Your task to perform on an android device: see creations saved in the google photos Image 0: 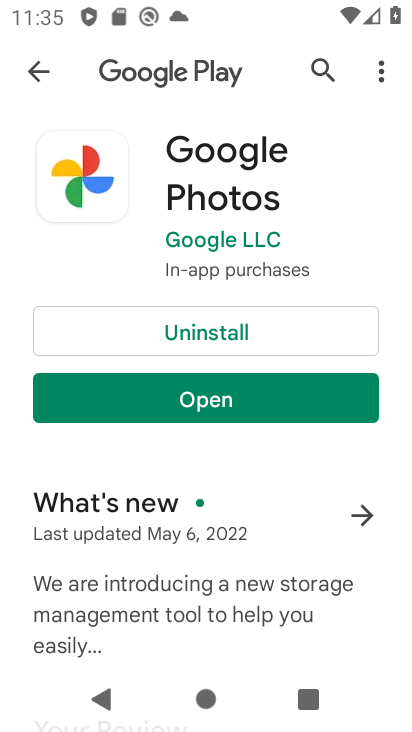
Step 0: press home button
Your task to perform on an android device: see creations saved in the google photos Image 1: 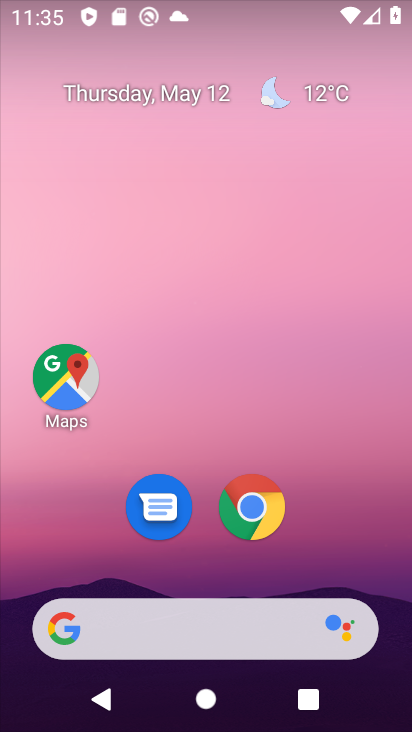
Step 1: drag from (182, 566) to (226, 118)
Your task to perform on an android device: see creations saved in the google photos Image 2: 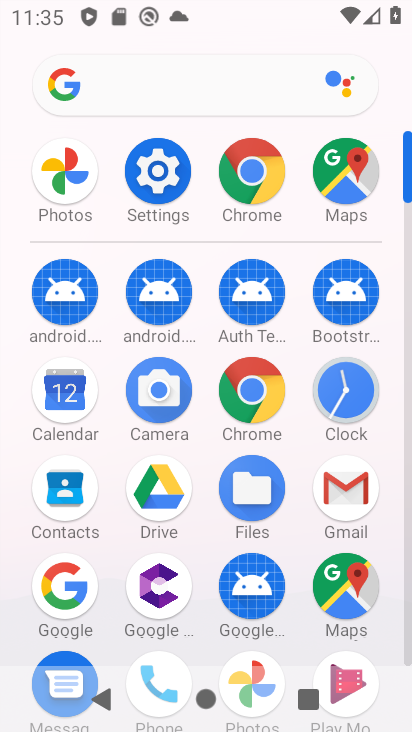
Step 2: drag from (231, 610) to (232, 306)
Your task to perform on an android device: see creations saved in the google photos Image 3: 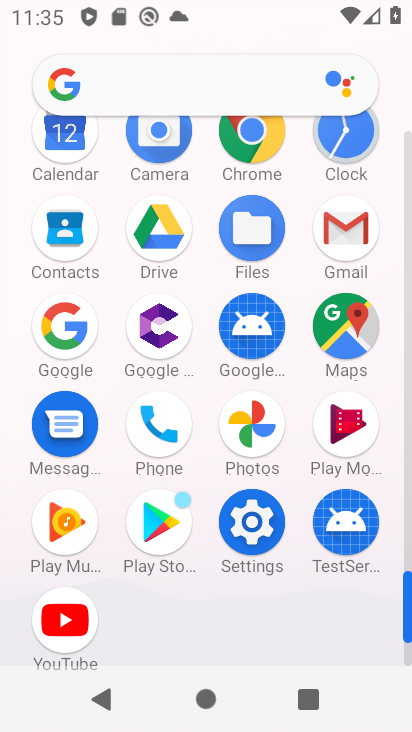
Step 3: click (246, 444)
Your task to perform on an android device: see creations saved in the google photos Image 4: 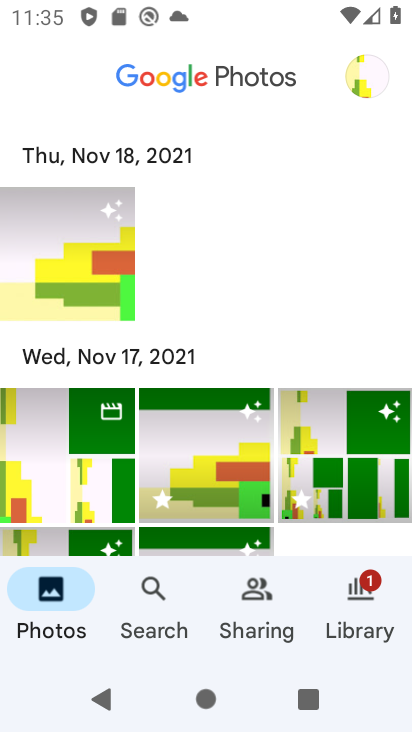
Step 4: click (169, 600)
Your task to perform on an android device: see creations saved in the google photos Image 5: 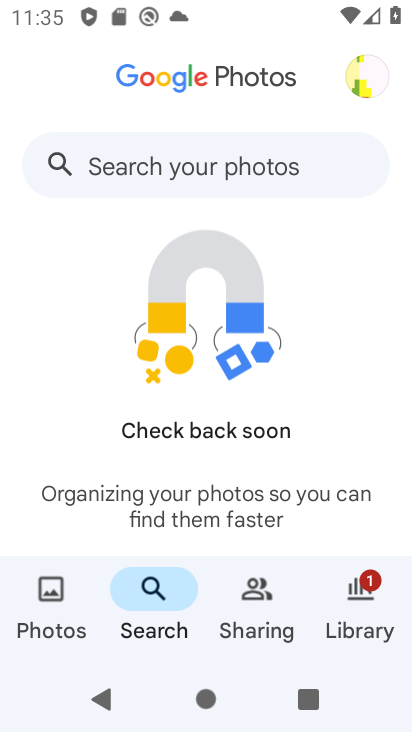
Step 5: click (197, 167)
Your task to perform on an android device: see creations saved in the google photos Image 6: 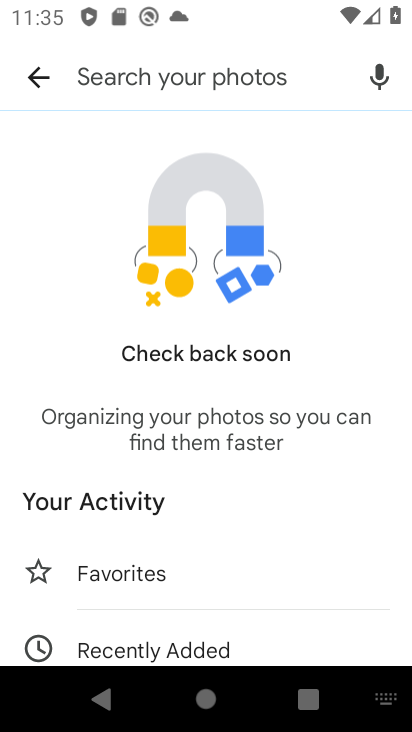
Step 6: type "creations"
Your task to perform on an android device: see creations saved in the google photos Image 7: 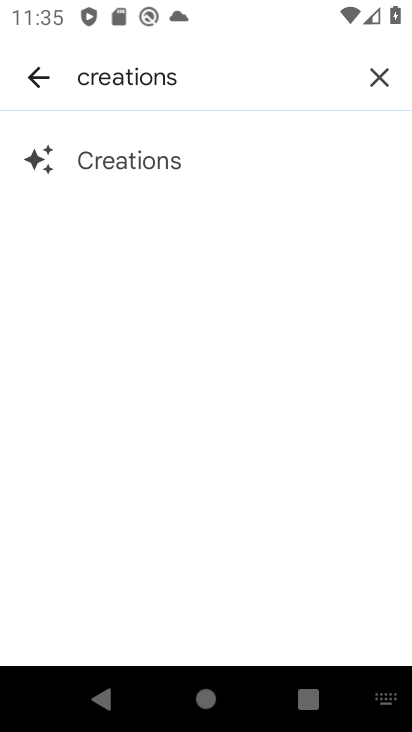
Step 7: click (169, 171)
Your task to perform on an android device: see creations saved in the google photos Image 8: 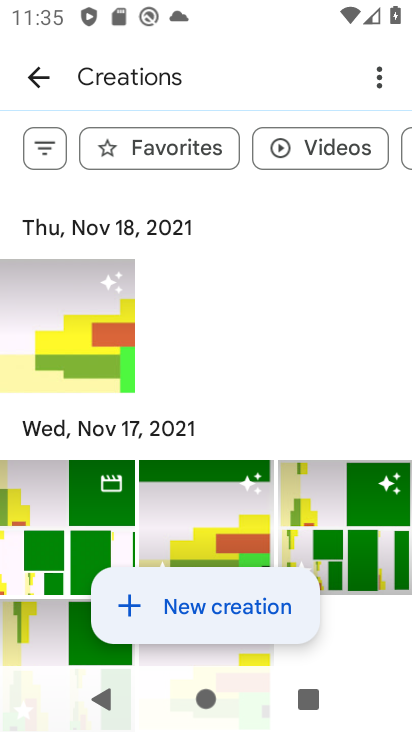
Step 8: task complete